Your task to perform on an android device: open device folders in google photos Image 0: 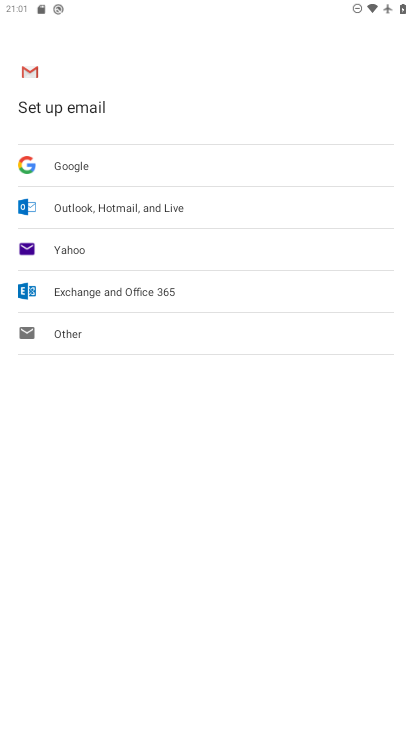
Step 0: press home button
Your task to perform on an android device: open device folders in google photos Image 1: 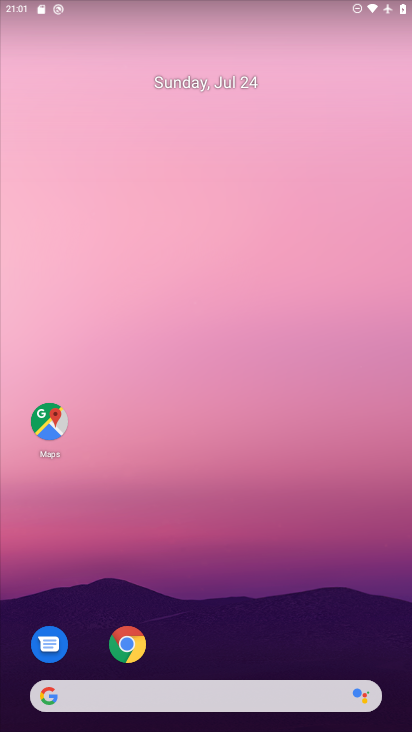
Step 1: drag from (355, 656) to (338, 128)
Your task to perform on an android device: open device folders in google photos Image 2: 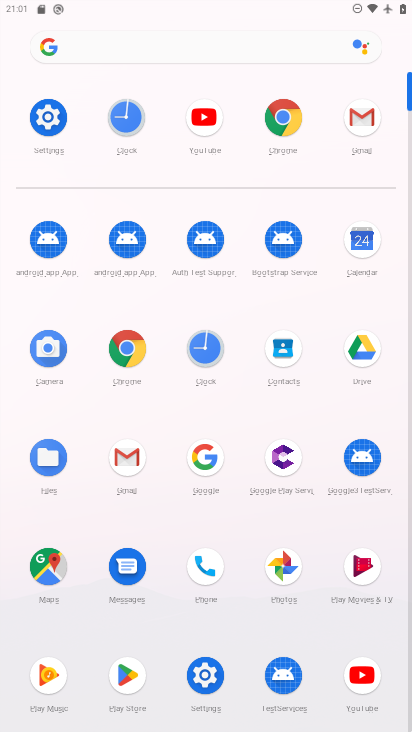
Step 2: click (282, 565)
Your task to perform on an android device: open device folders in google photos Image 3: 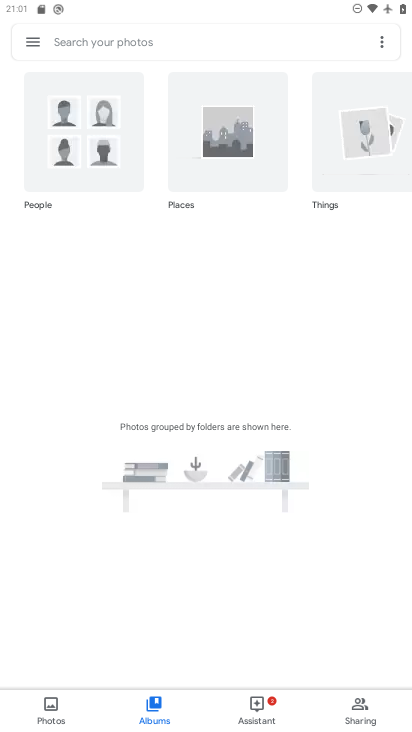
Step 3: click (29, 46)
Your task to perform on an android device: open device folders in google photos Image 4: 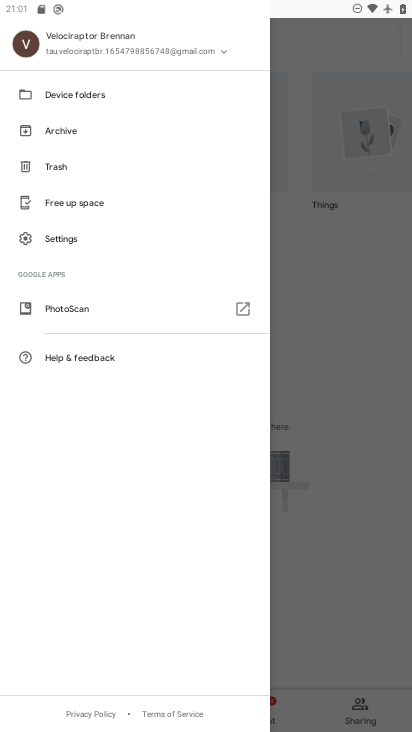
Step 4: click (73, 94)
Your task to perform on an android device: open device folders in google photos Image 5: 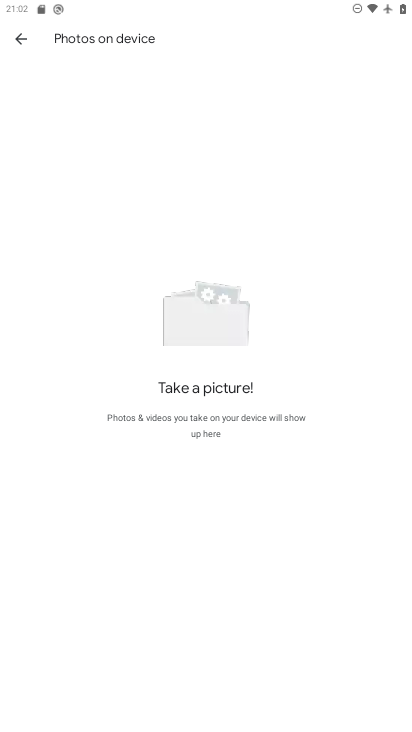
Step 5: task complete